Your task to perform on an android device: turn on location history Image 0: 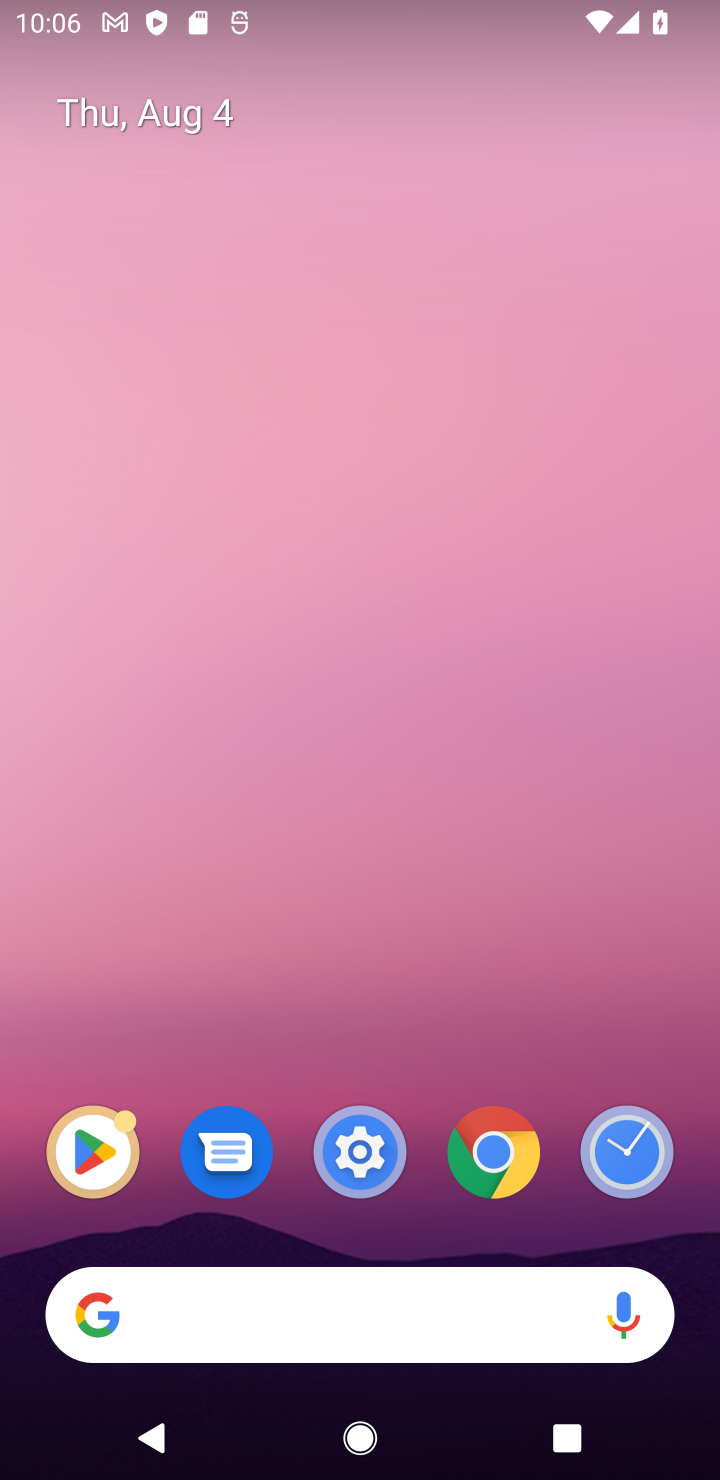
Step 0: click (362, 1152)
Your task to perform on an android device: turn on location history Image 1: 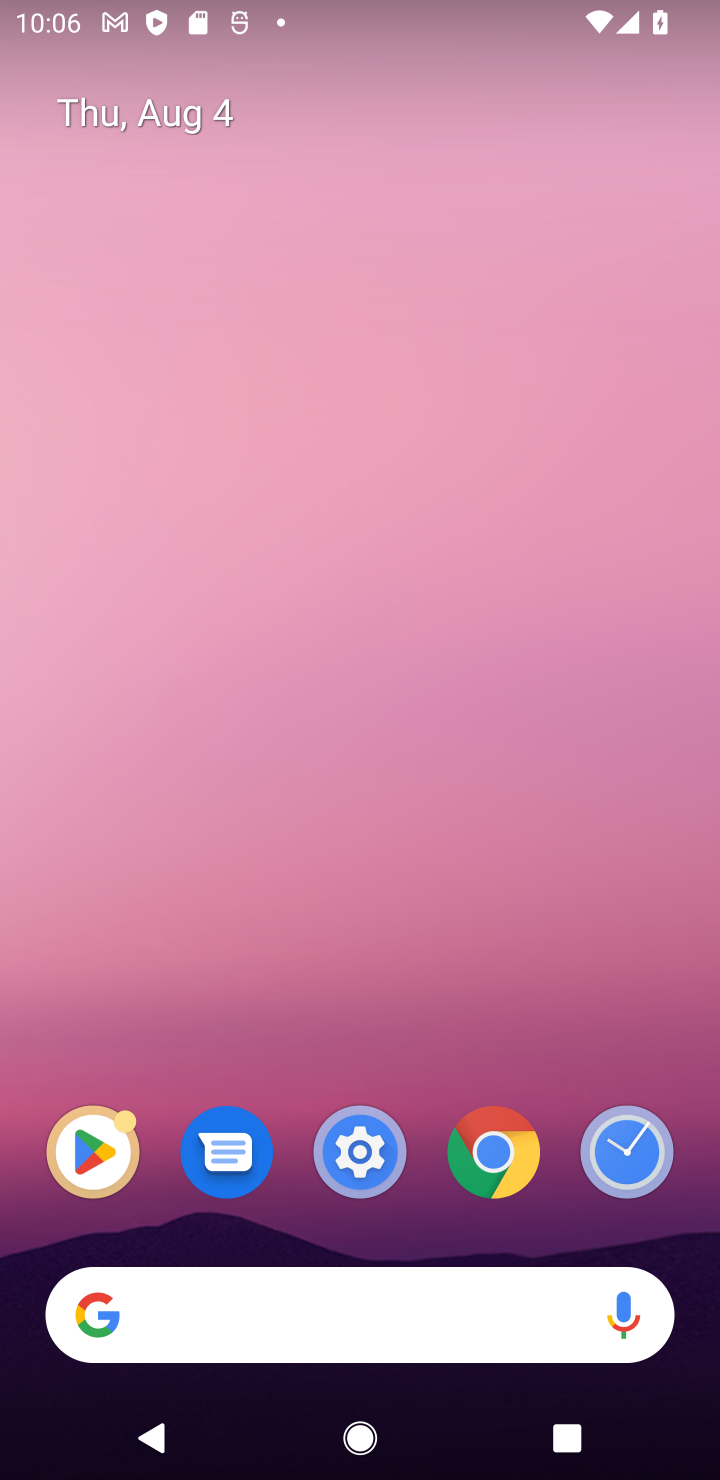
Step 1: click (365, 1158)
Your task to perform on an android device: turn on location history Image 2: 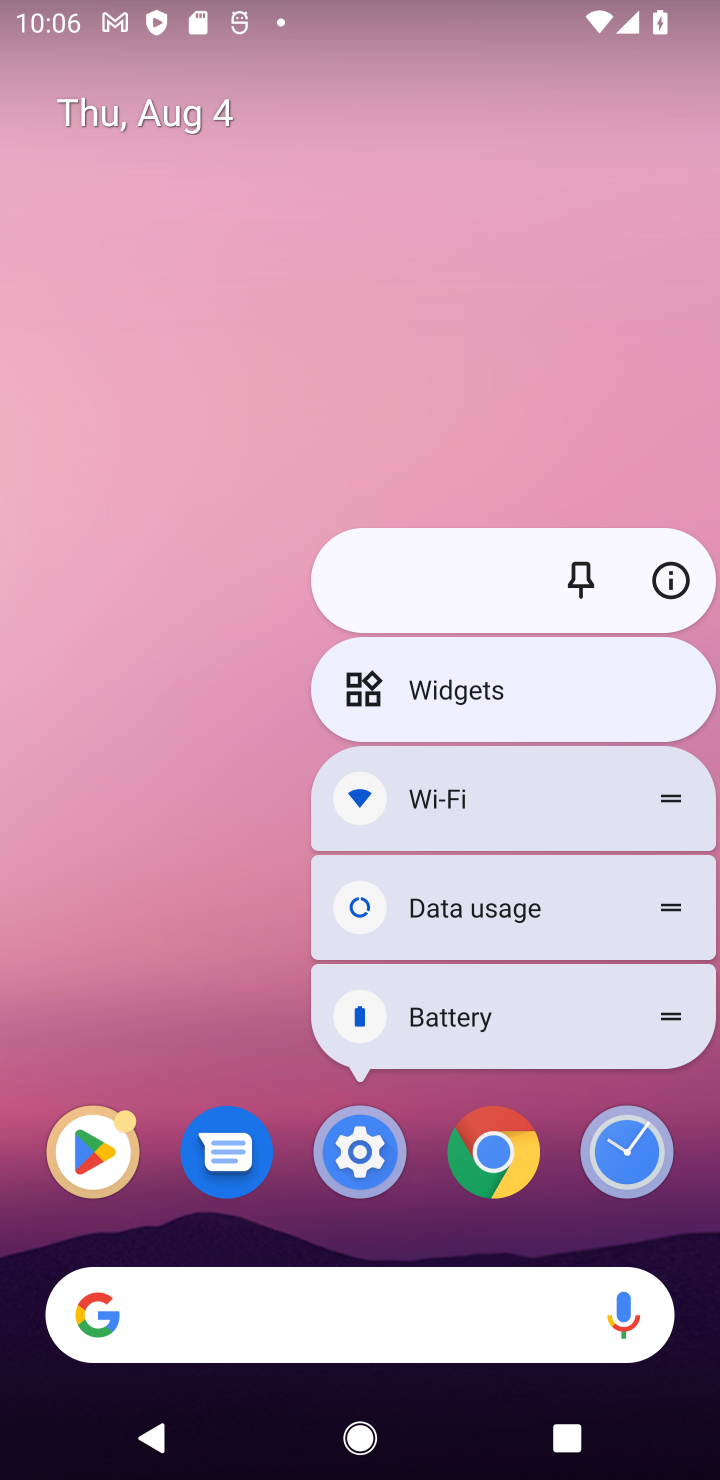
Step 2: click (350, 1140)
Your task to perform on an android device: turn on location history Image 3: 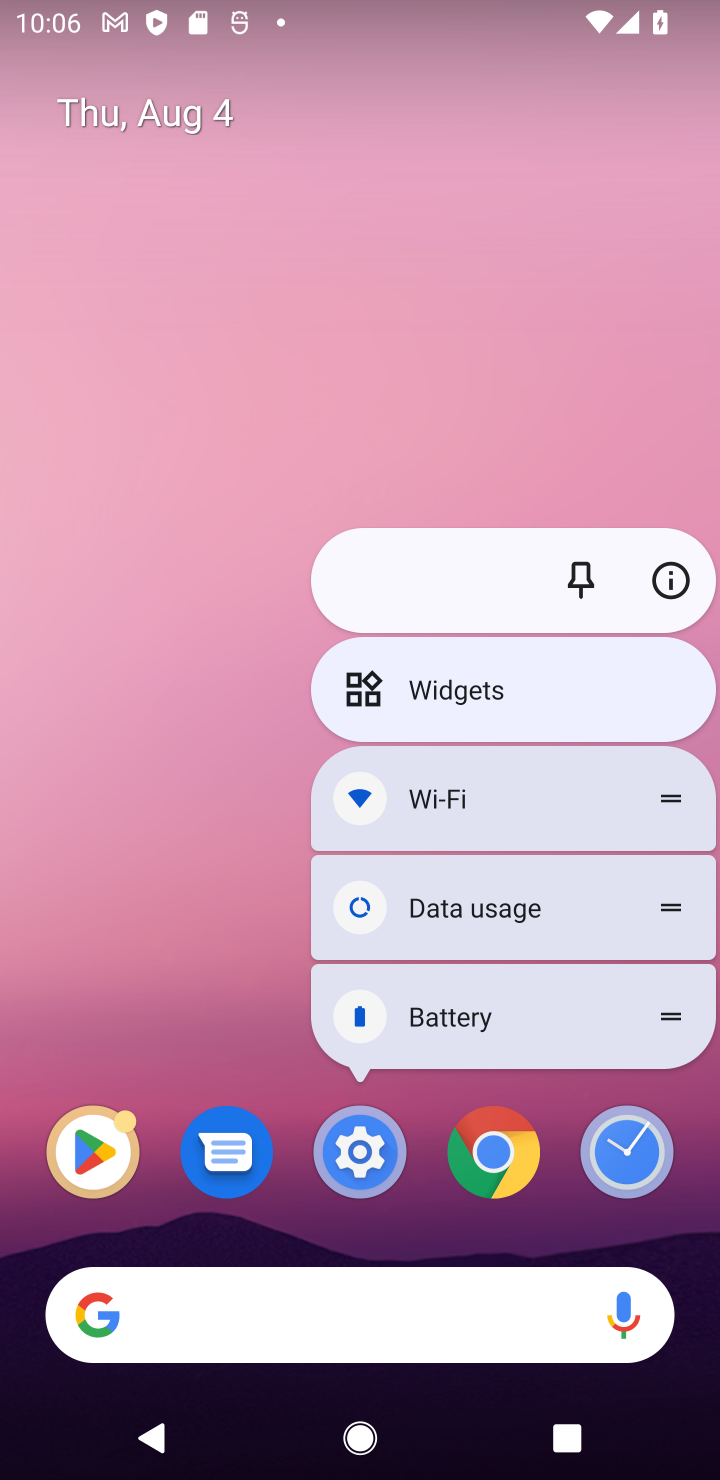
Step 3: click (370, 1155)
Your task to perform on an android device: turn on location history Image 4: 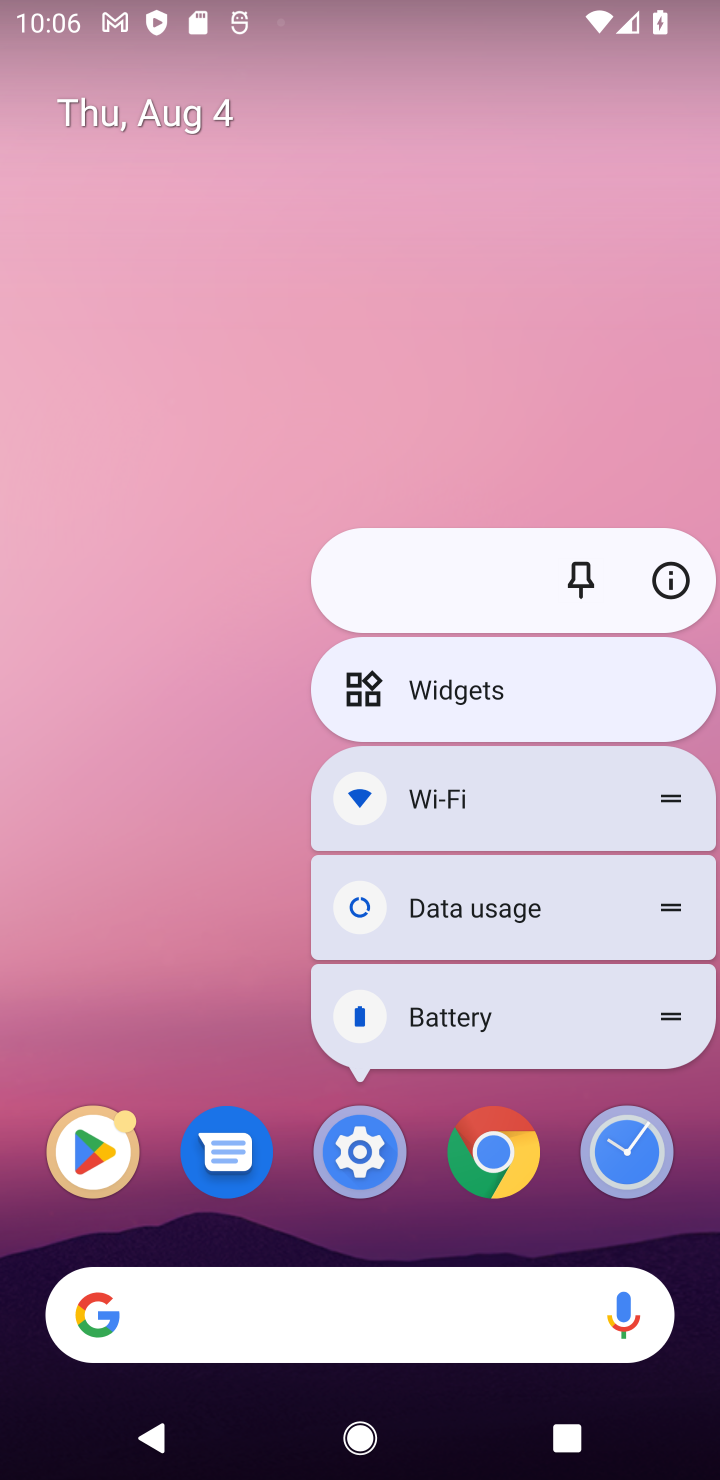
Step 4: click (362, 1145)
Your task to perform on an android device: turn on location history Image 5: 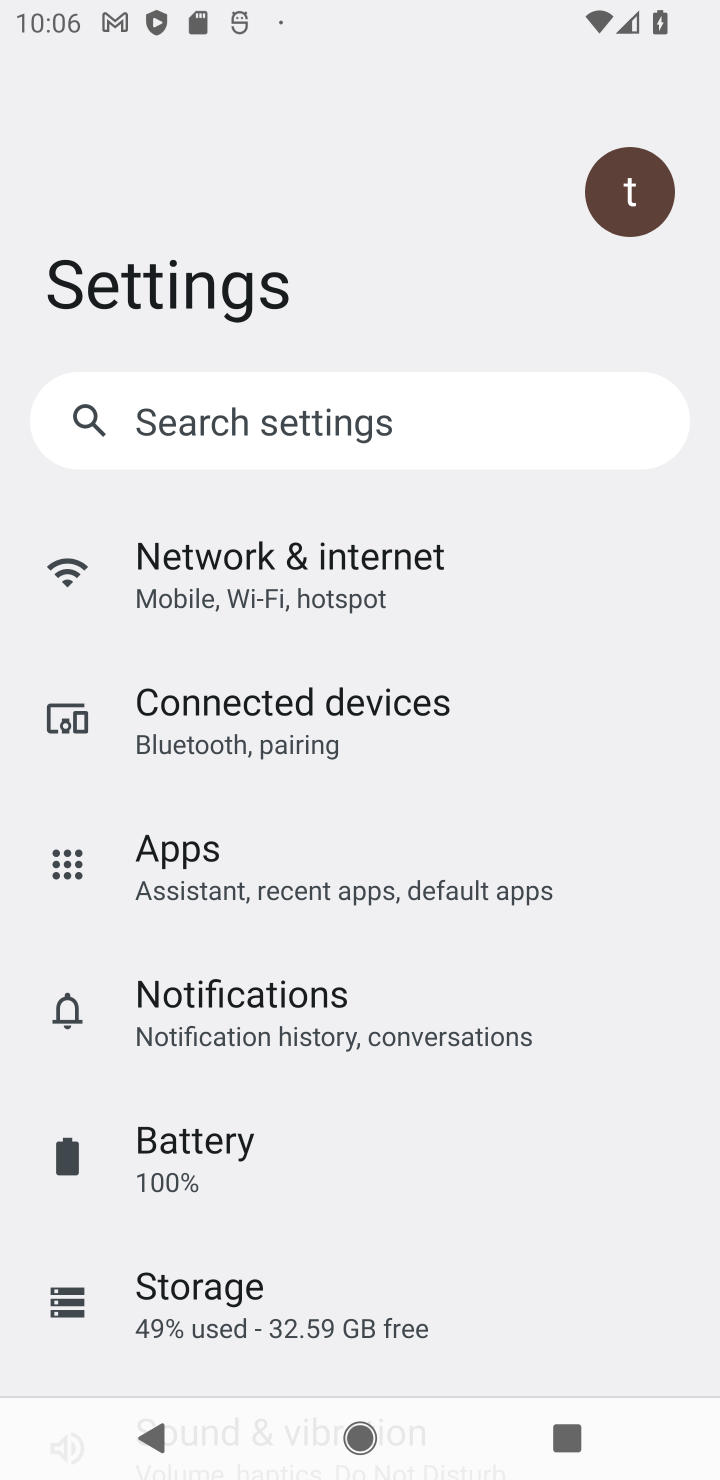
Step 5: drag from (299, 1115) to (396, 536)
Your task to perform on an android device: turn on location history Image 6: 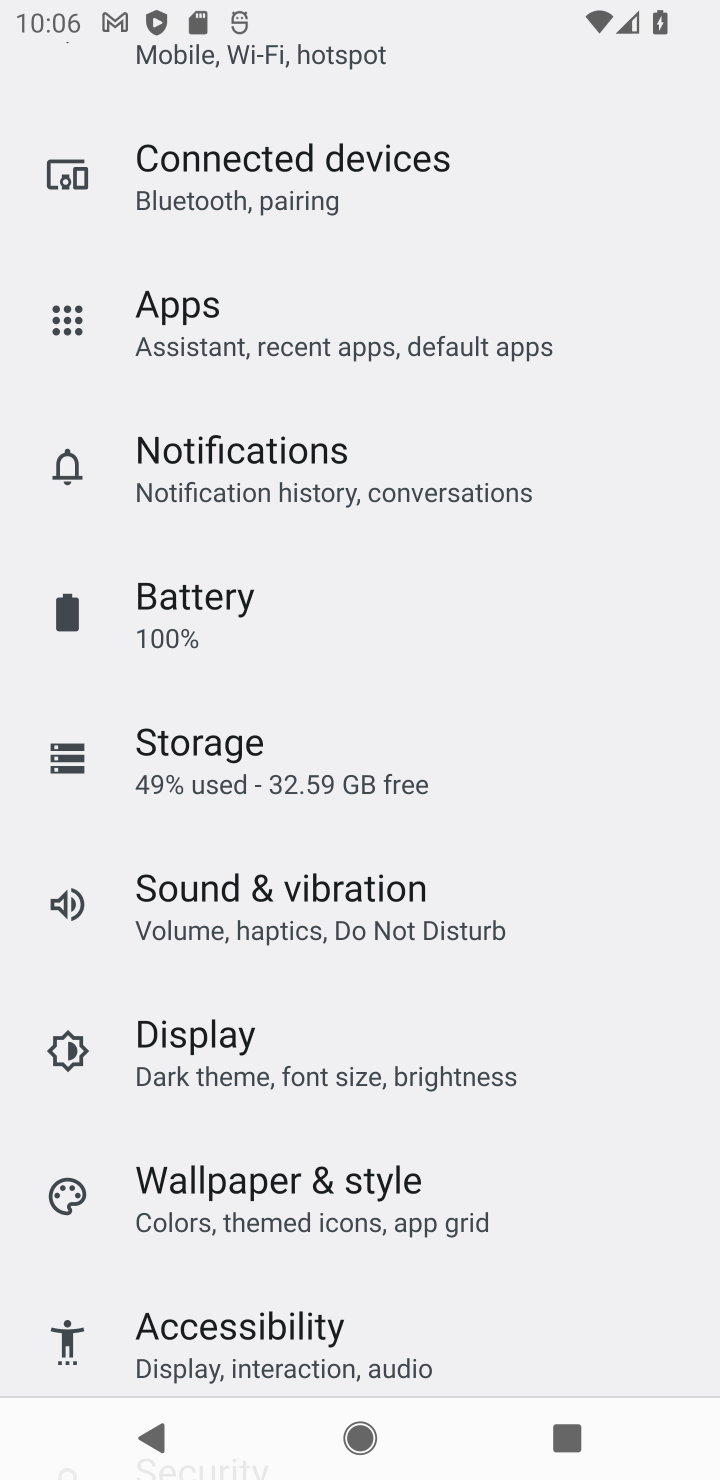
Step 6: drag from (327, 999) to (361, 385)
Your task to perform on an android device: turn on location history Image 7: 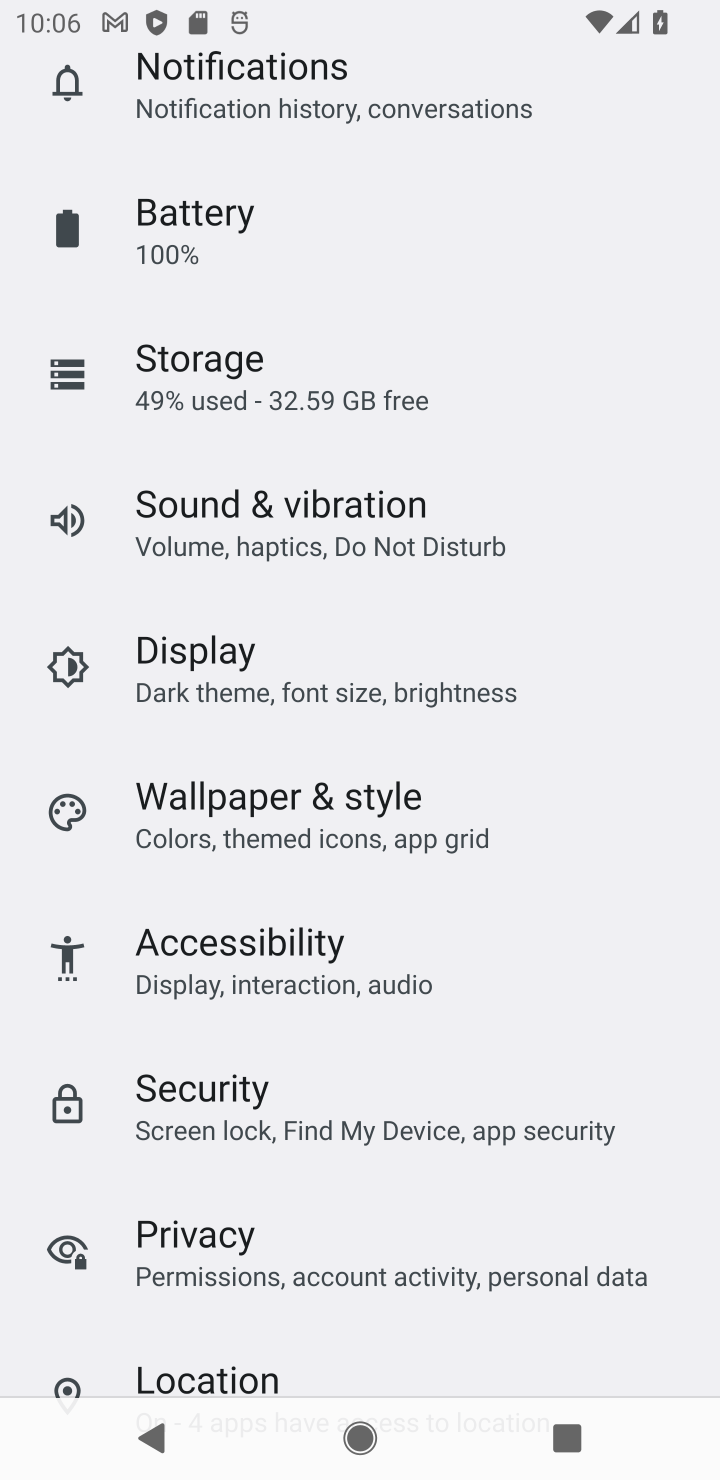
Step 7: click (164, 1370)
Your task to perform on an android device: turn on location history Image 8: 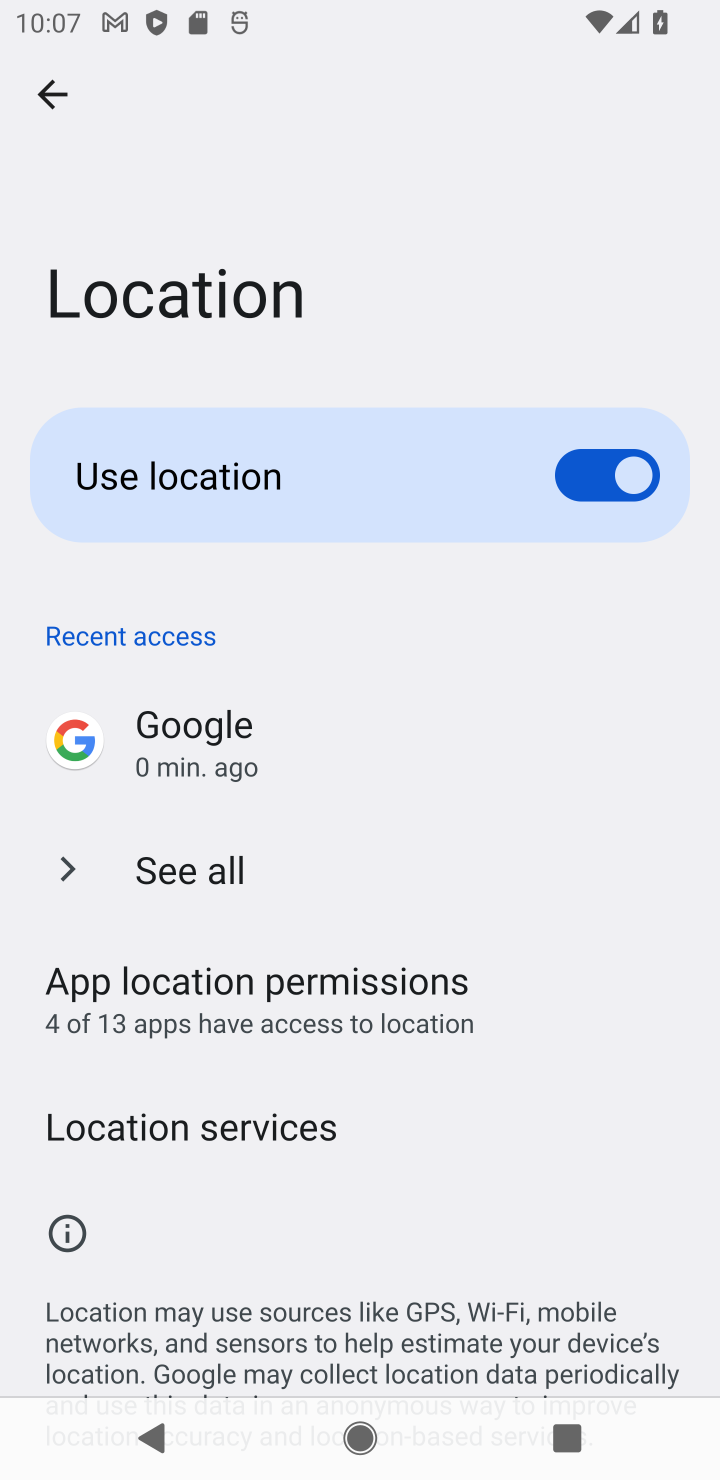
Step 8: click (230, 1115)
Your task to perform on an android device: turn on location history Image 9: 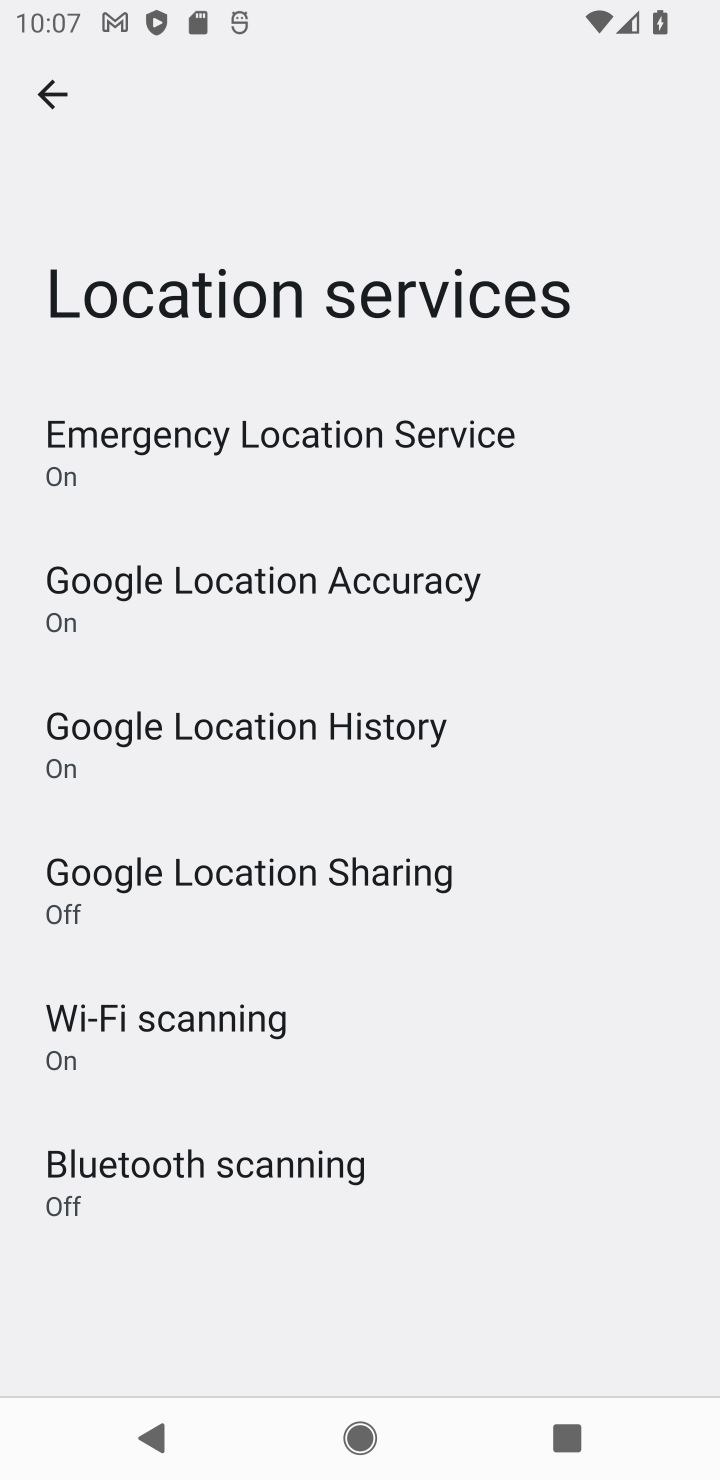
Step 9: click (252, 732)
Your task to perform on an android device: turn on location history Image 10: 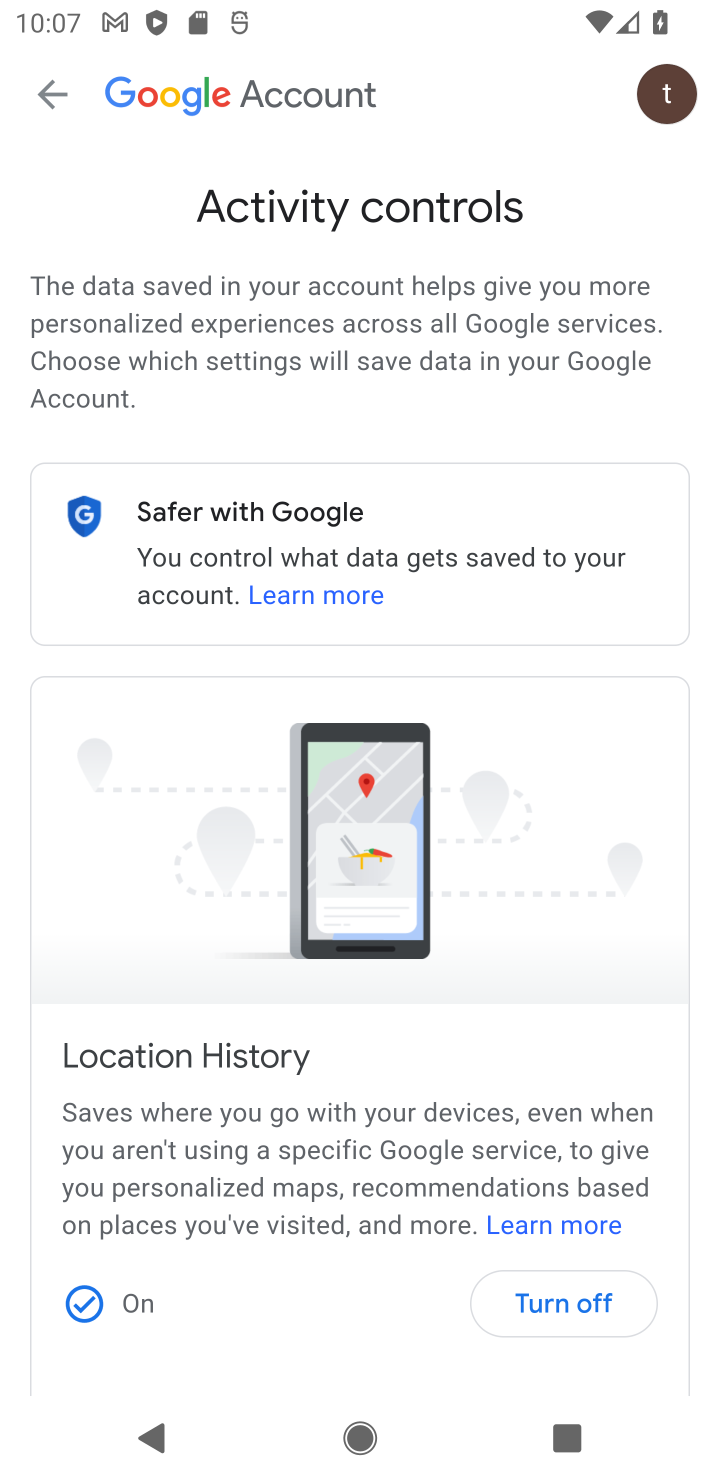
Step 10: task complete